Your task to perform on an android device: What's the weather? Image 0: 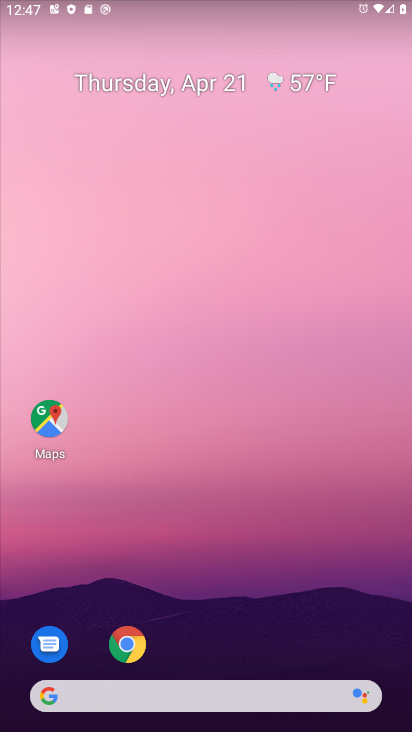
Step 0: click (206, 698)
Your task to perform on an android device: What's the weather? Image 1: 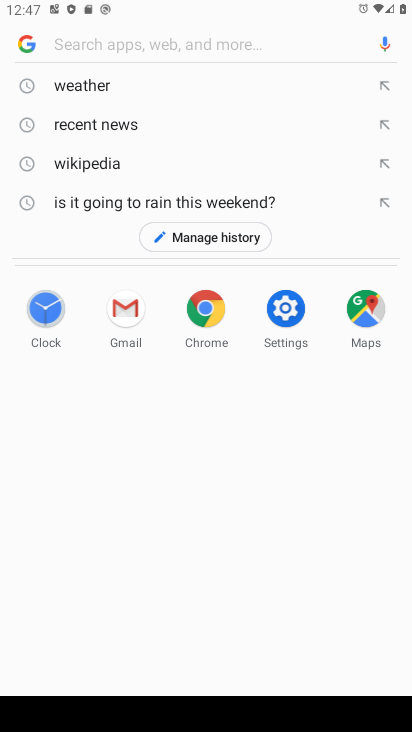
Step 1: click (75, 96)
Your task to perform on an android device: What's the weather? Image 2: 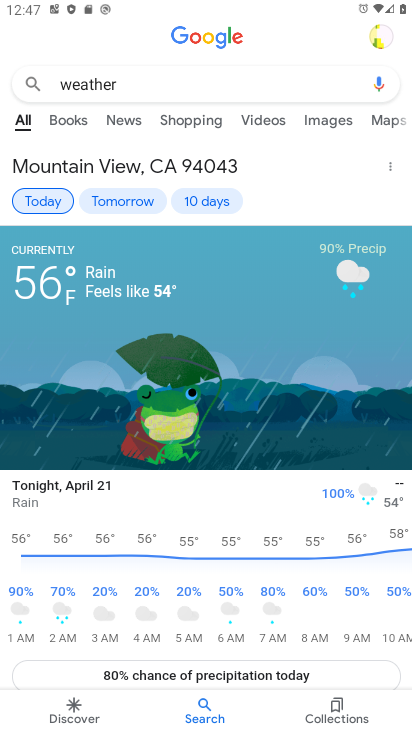
Step 2: task complete